Your task to perform on an android device: add a label to a message in the gmail app Image 0: 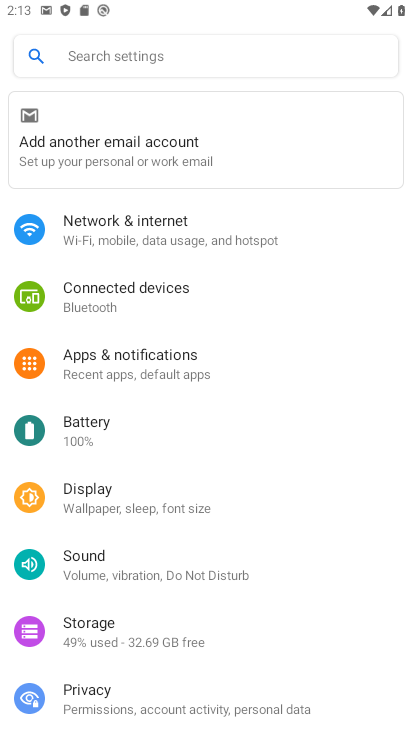
Step 0: press home button
Your task to perform on an android device: add a label to a message in the gmail app Image 1: 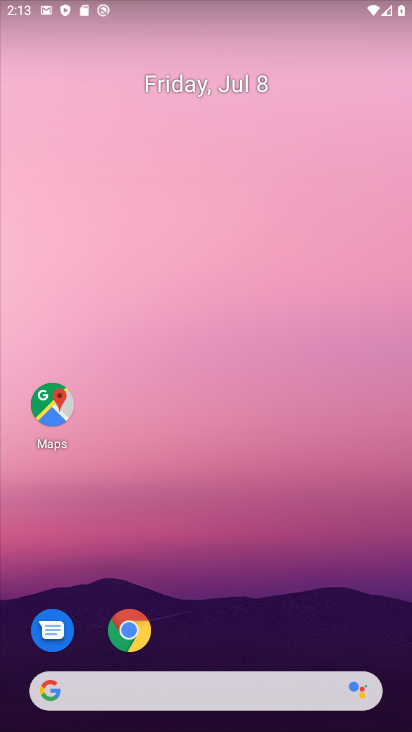
Step 1: drag from (243, 636) to (197, 264)
Your task to perform on an android device: add a label to a message in the gmail app Image 2: 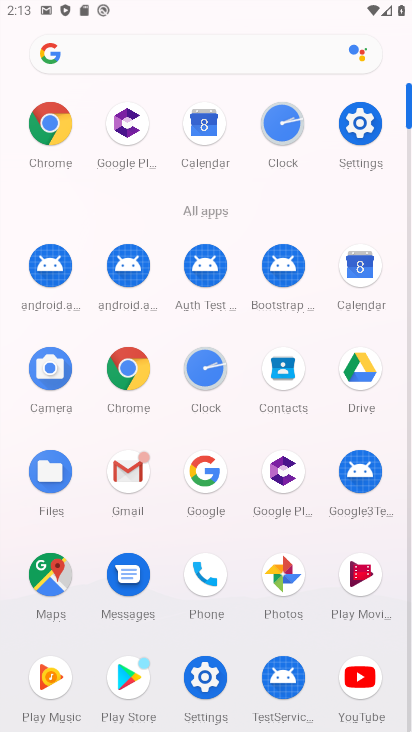
Step 2: click (133, 493)
Your task to perform on an android device: add a label to a message in the gmail app Image 3: 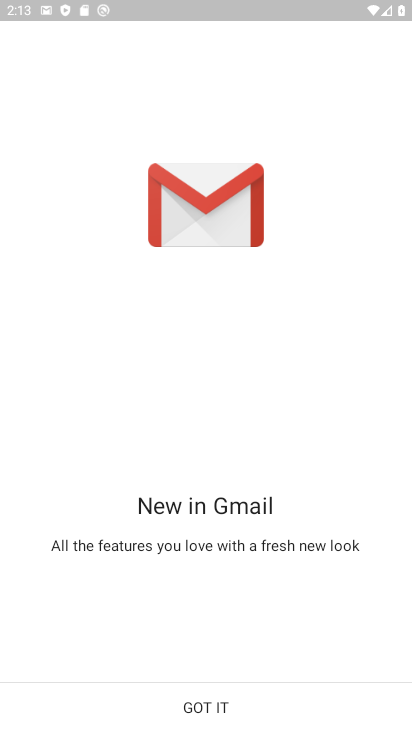
Step 3: click (227, 716)
Your task to perform on an android device: add a label to a message in the gmail app Image 4: 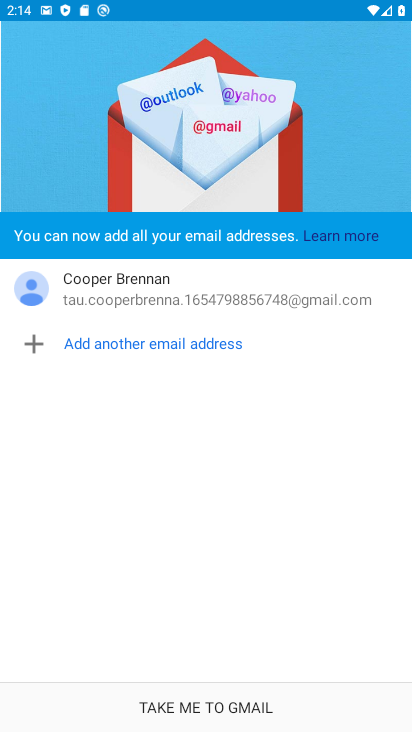
Step 4: click (240, 704)
Your task to perform on an android device: add a label to a message in the gmail app Image 5: 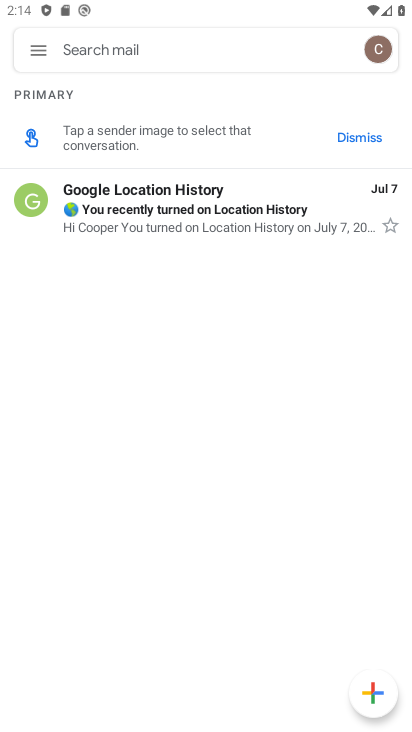
Step 5: click (172, 232)
Your task to perform on an android device: add a label to a message in the gmail app Image 6: 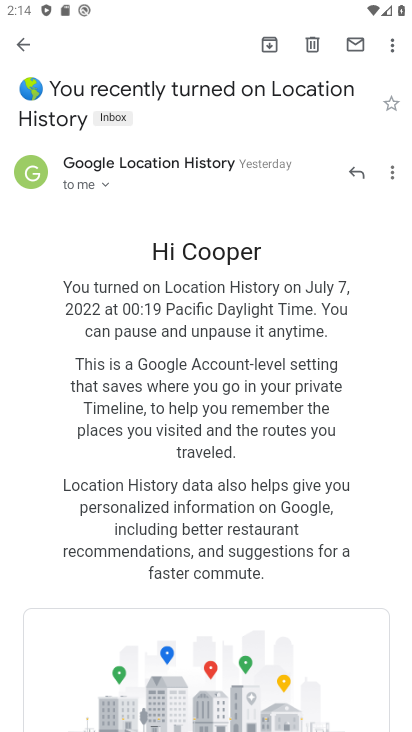
Step 6: click (381, 52)
Your task to perform on an android device: add a label to a message in the gmail app Image 7: 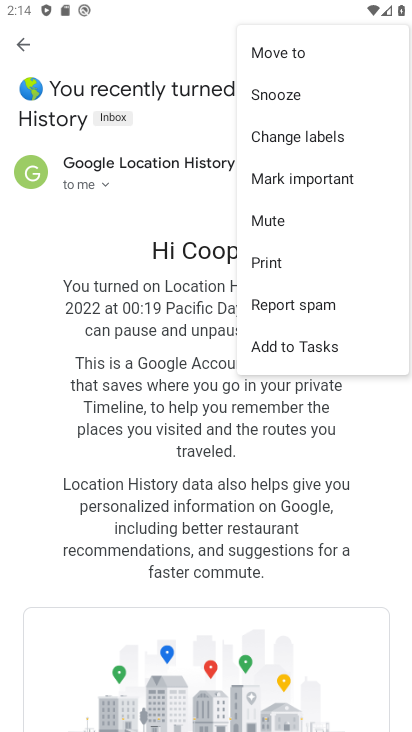
Step 7: click (155, 209)
Your task to perform on an android device: add a label to a message in the gmail app Image 8: 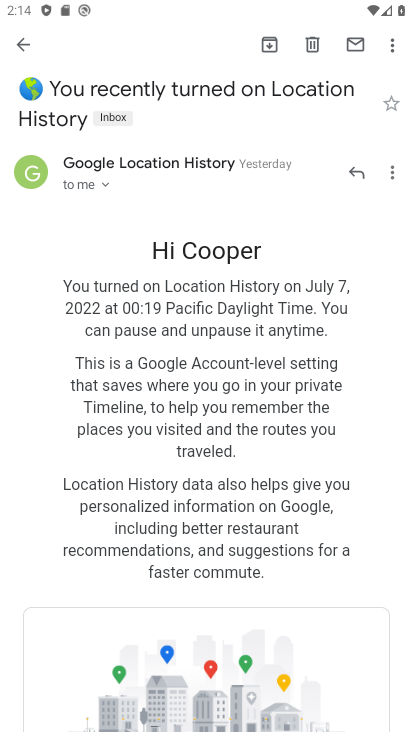
Step 8: click (394, 55)
Your task to perform on an android device: add a label to a message in the gmail app Image 9: 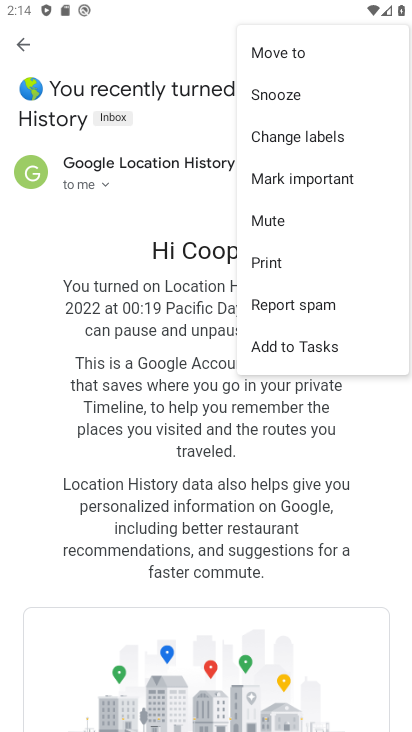
Step 9: click (333, 127)
Your task to perform on an android device: add a label to a message in the gmail app Image 10: 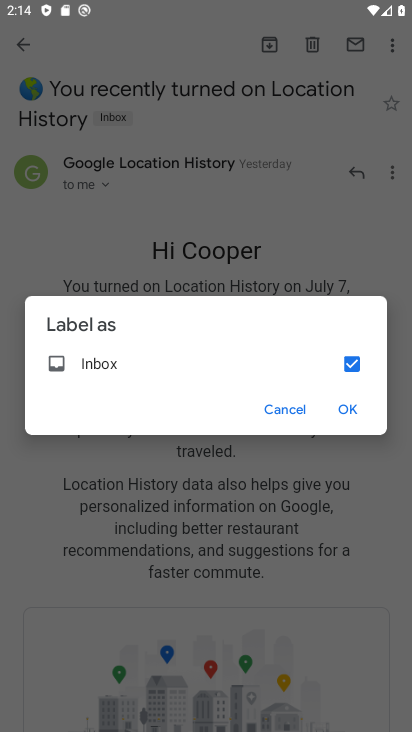
Step 10: click (339, 387)
Your task to perform on an android device: add a label to a message in the gmail app Image 11: 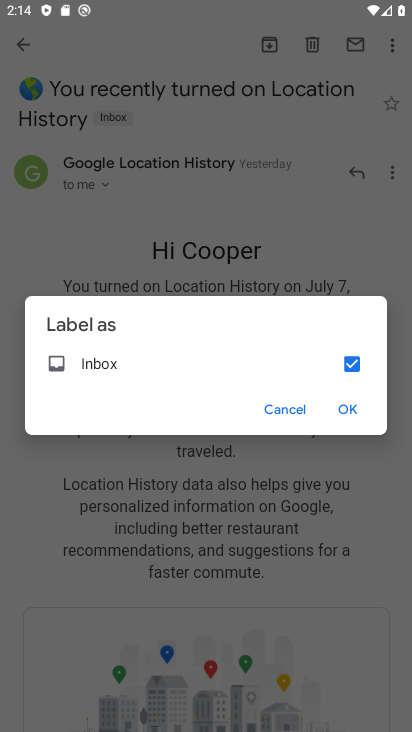
Step 11: task complete